Your task to perform on an android device: What's on my calendar today? Image 0: 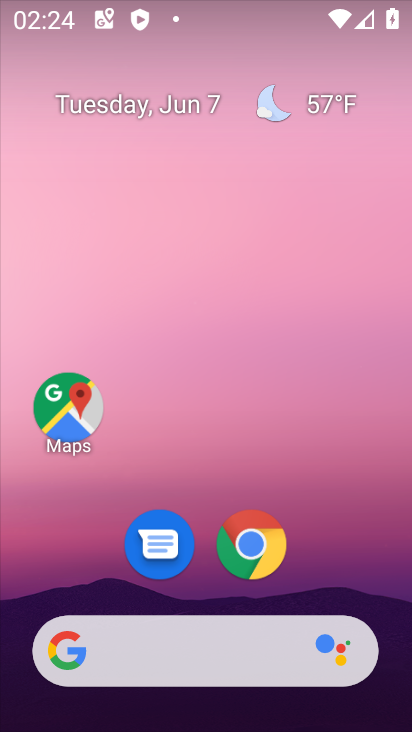
Step 0: drag from (279, 558) to (271, 395)
Your task to perform on an android device: What's on my calendar today? Image 1: 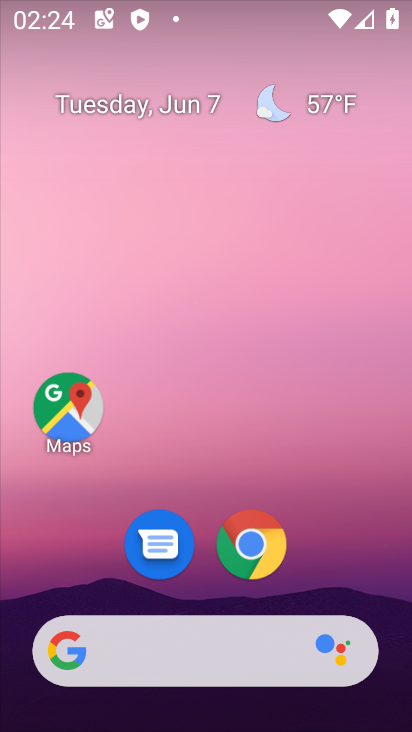
Step 1: drag from (307, 538) to (304, 364)
Your task to perform on an android device: What's on my calendar today? Image 2: 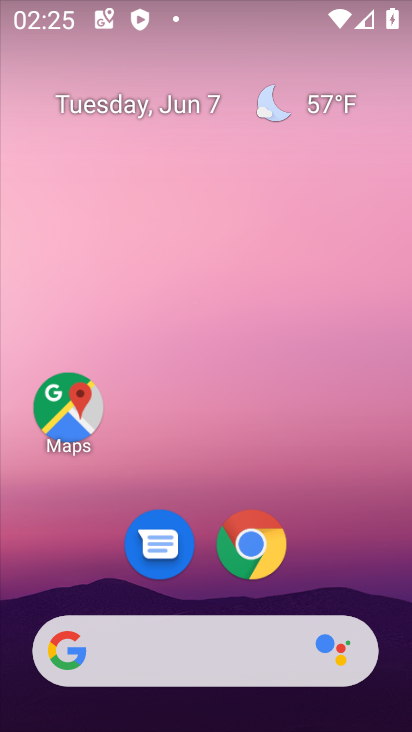
Step 2: drag from (313, 630) to (305, 417)
Your task to perform on an android device: What's on my calendar today? Image 3: 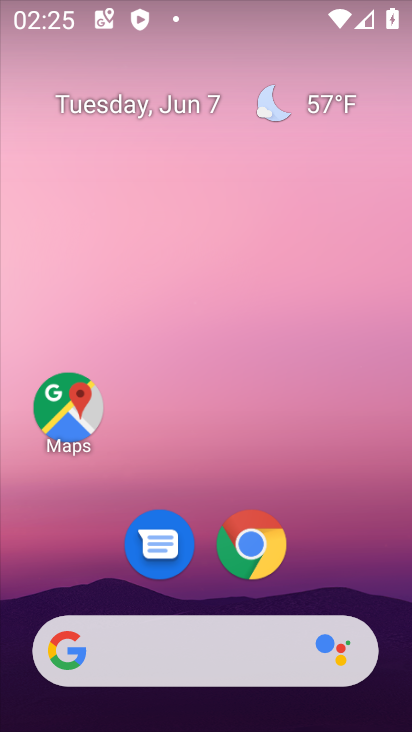
Step 3: drag from (290, 608) to (240, 294)
Your task to perform on an android device: What's on my calendar today? Image 4: 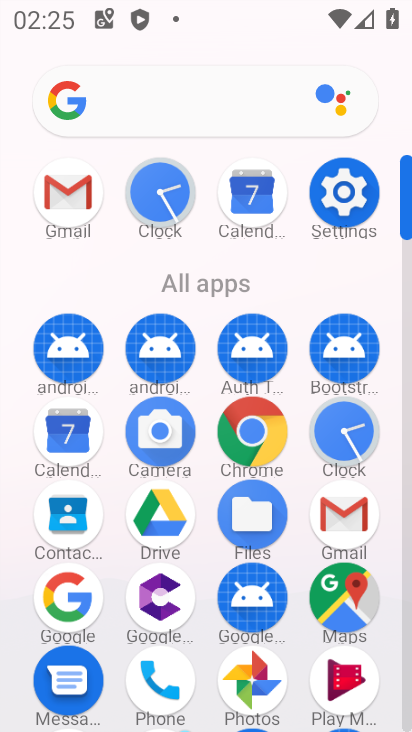
Step 4: click (46, 435)
Your task to perform on an android device: What's on my calendar today? Image 5: 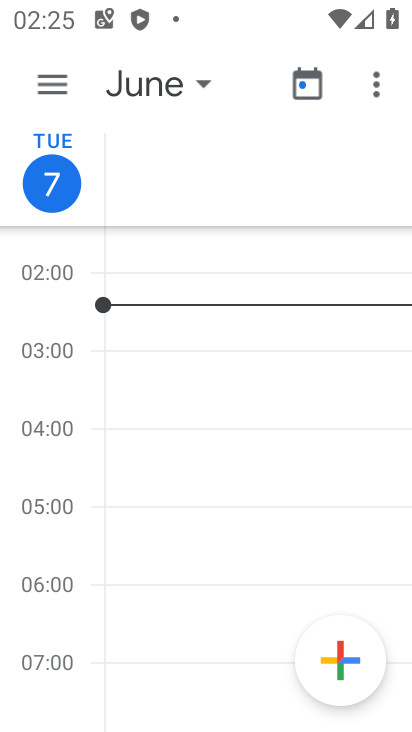
Step 5: task complete